Your task to perform on an android device: allow notifications from all sites in the chrome app Image 0: 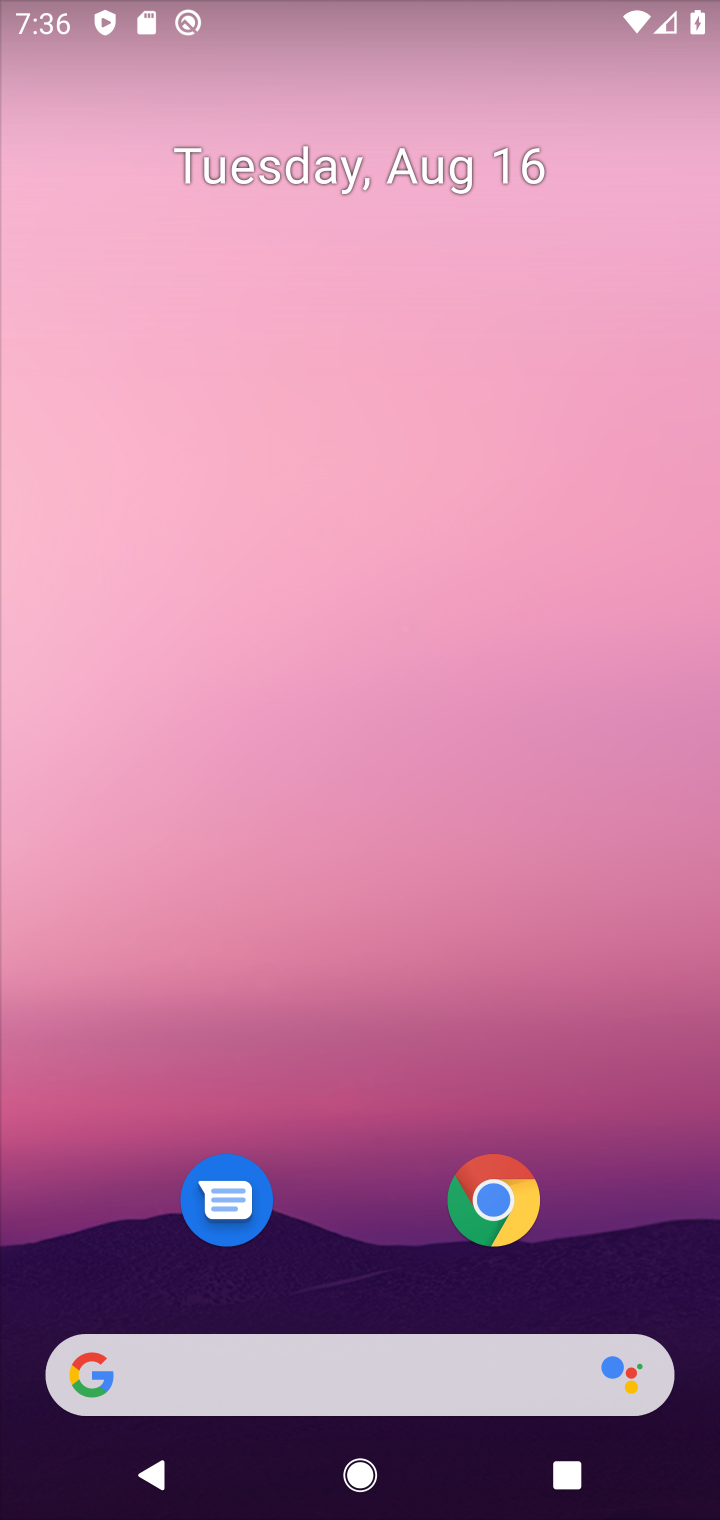
Step 0: click (513, 1188)
Your task to perform on an android device: allow notifications from all sites in the chrome app Image 1: 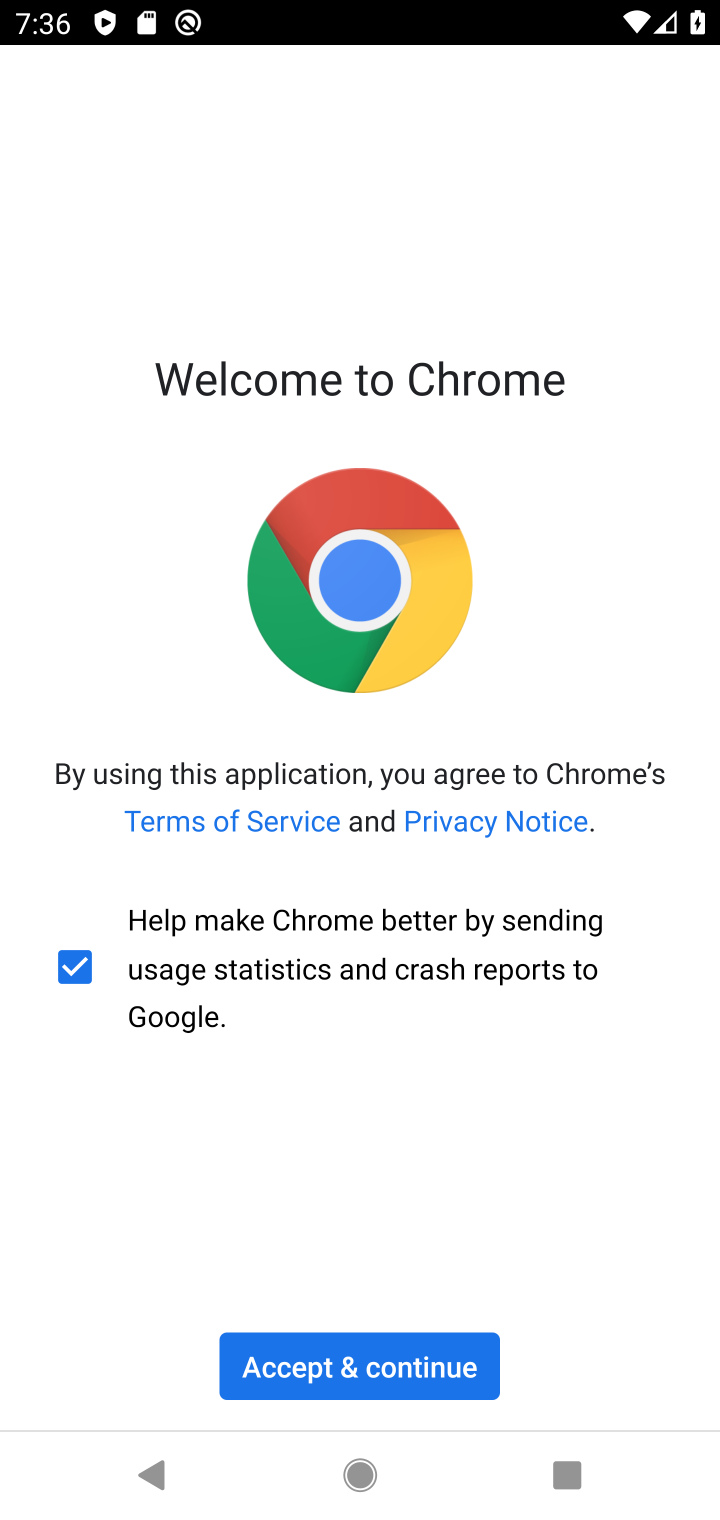
Step 1: click (308, 1363)
Your task to perform on an android device: allow notifications from all sites in the chrome app Image 2: 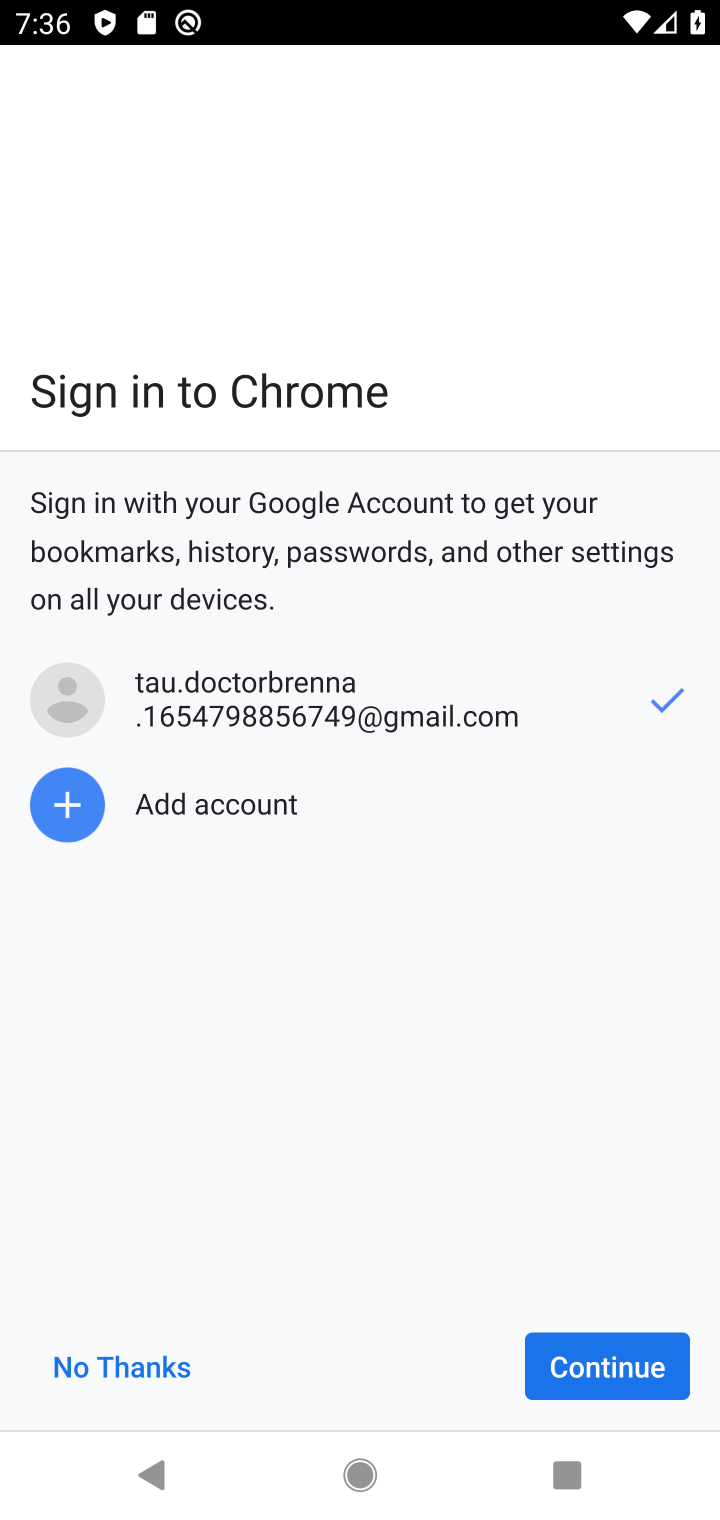
Step 2: click (570, 1361)
Your task to perform on an android device: allow notifications from all sites in the chrome app Image 3: 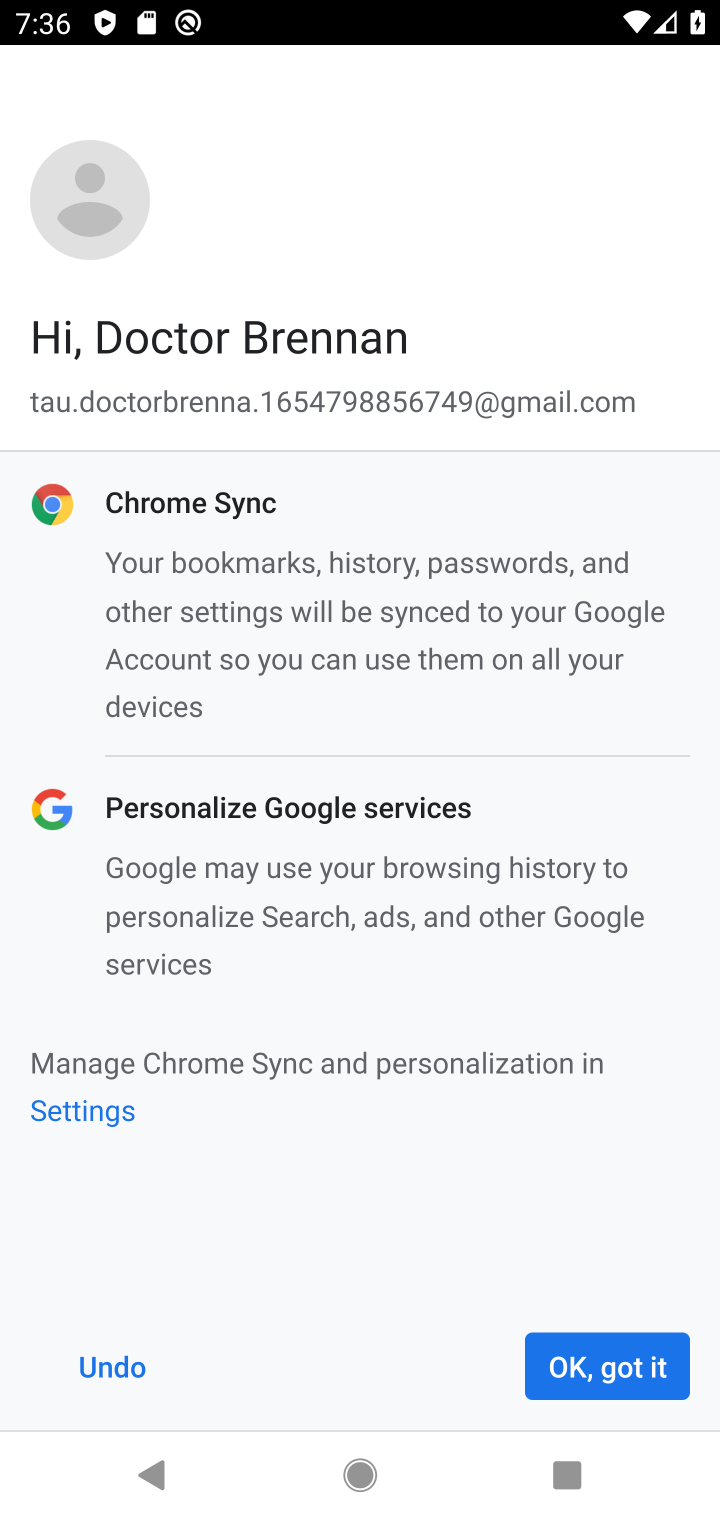
Step 3: click (570, 1361)
Your task to perform on an android device: allow notifications from all sites in the chrome app Image 4: 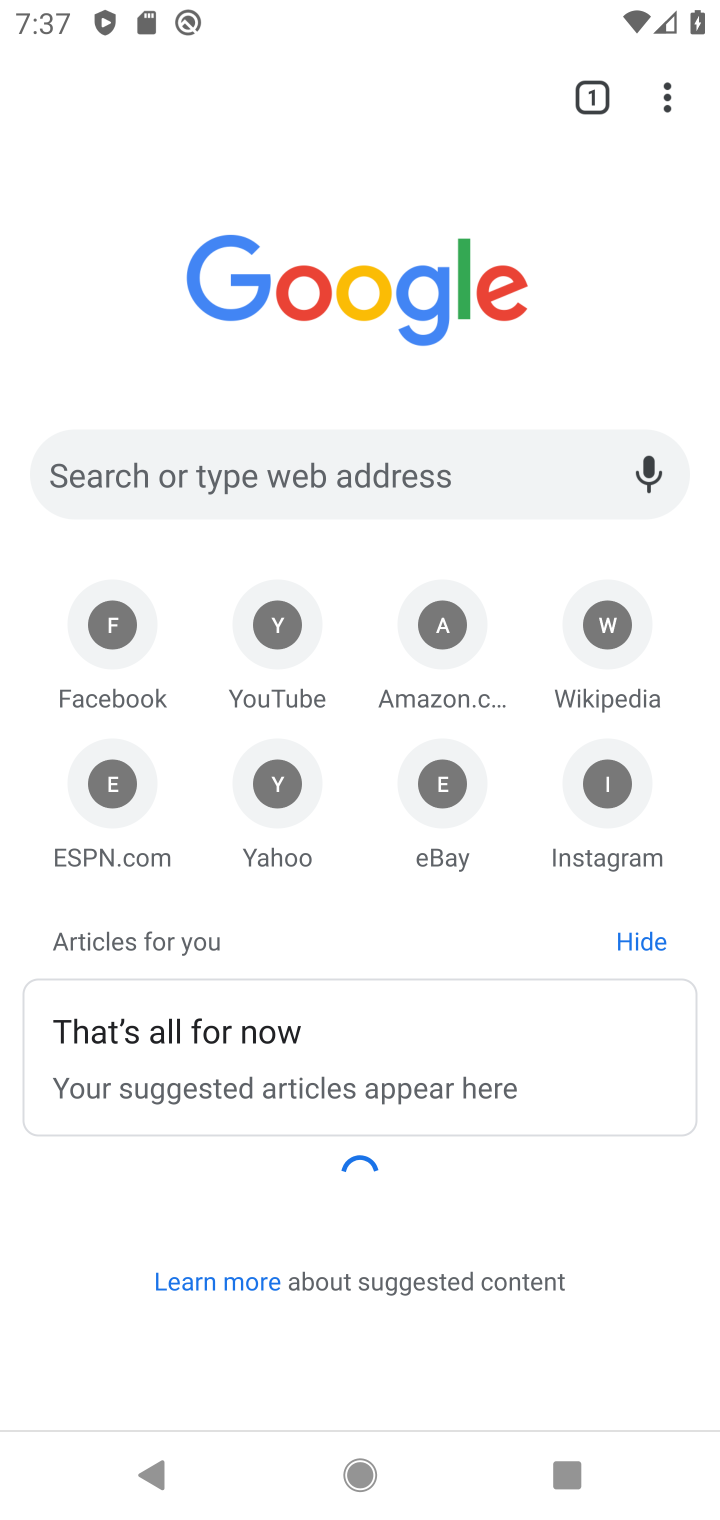
Step 4: click (670, 106)
Your task to perform on an android device: allow notifications from all sites in the chrome app Image 5: 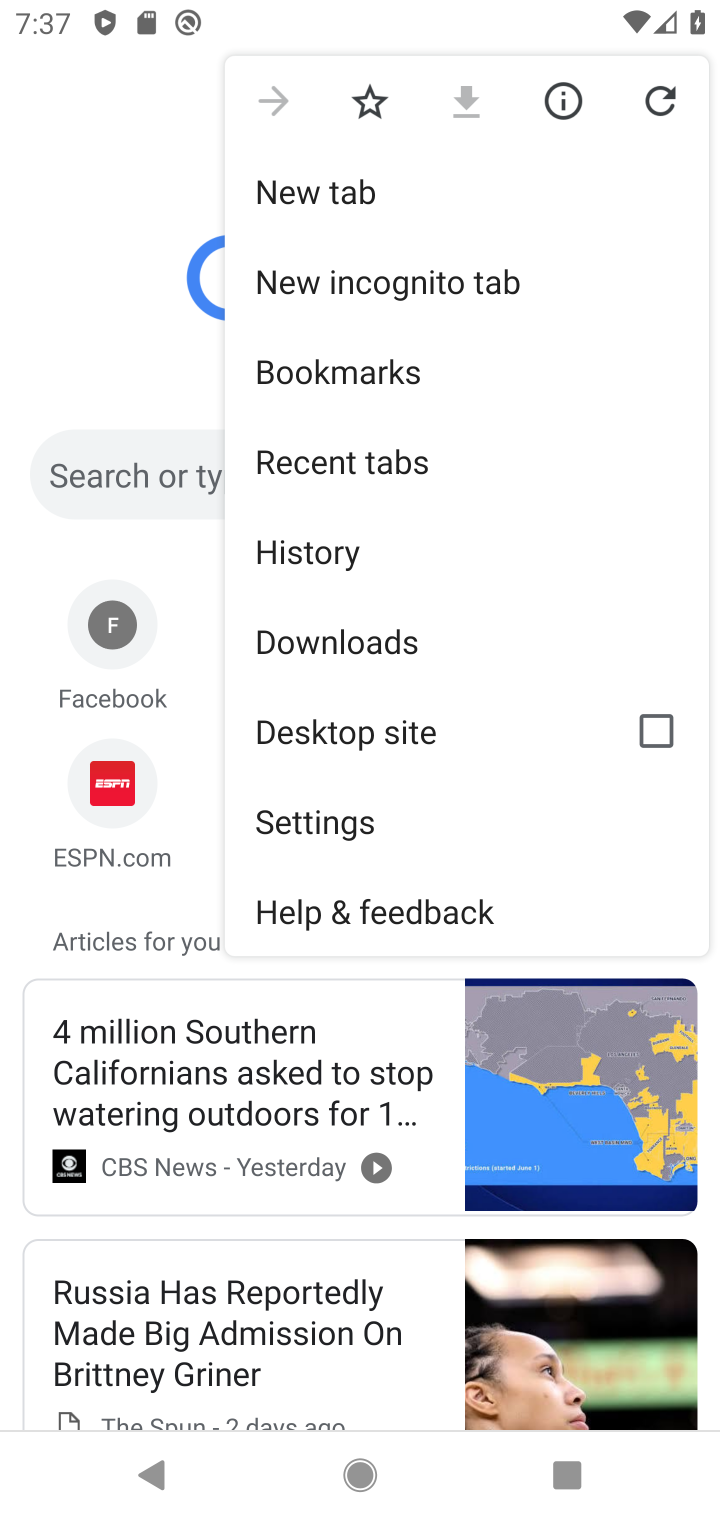
Step 5: click (342, 823)
Your task to perform on an android device: allow notifications from all sites in the chrome app Image 6: 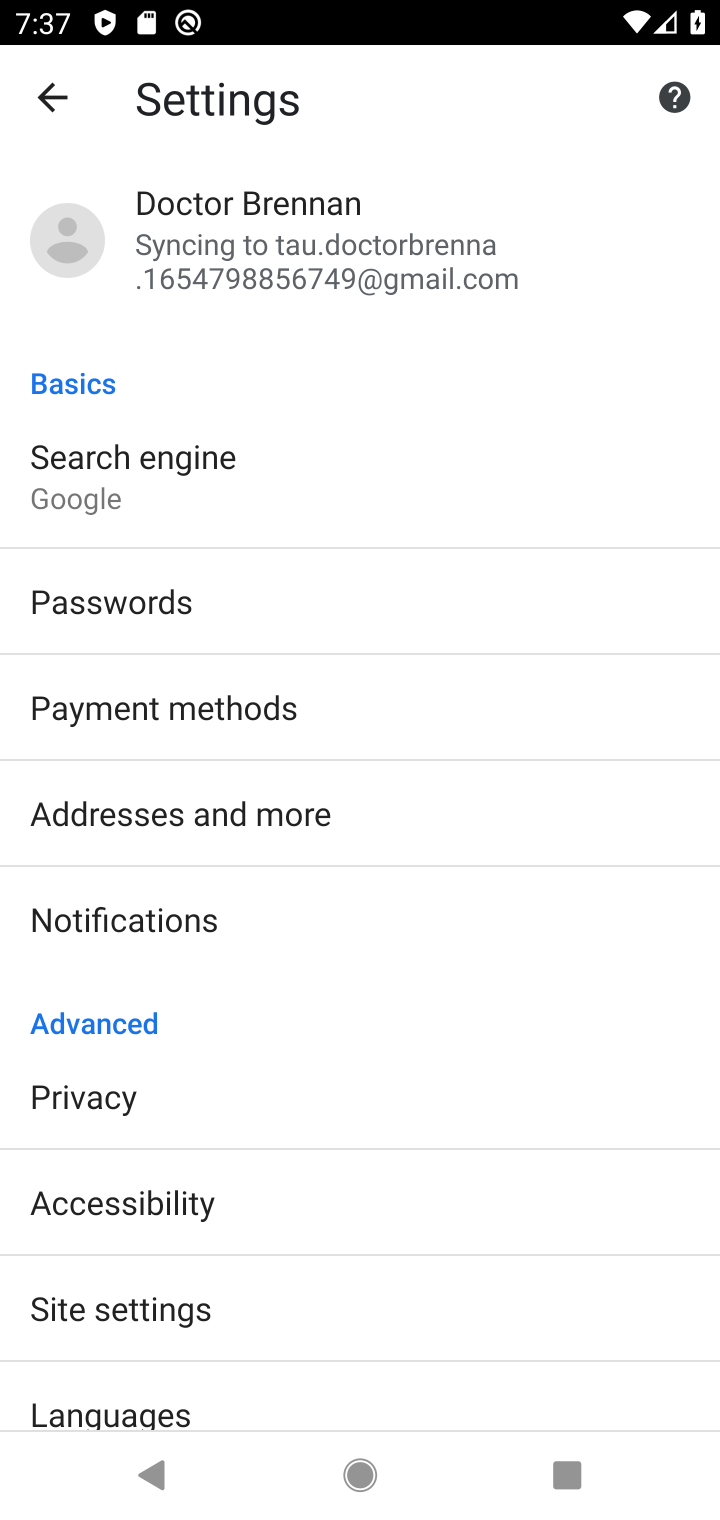
Step 6: click (151, 1306)
Your task to perform on an android device: allow notifications from all sites in the chrome app Image 7: 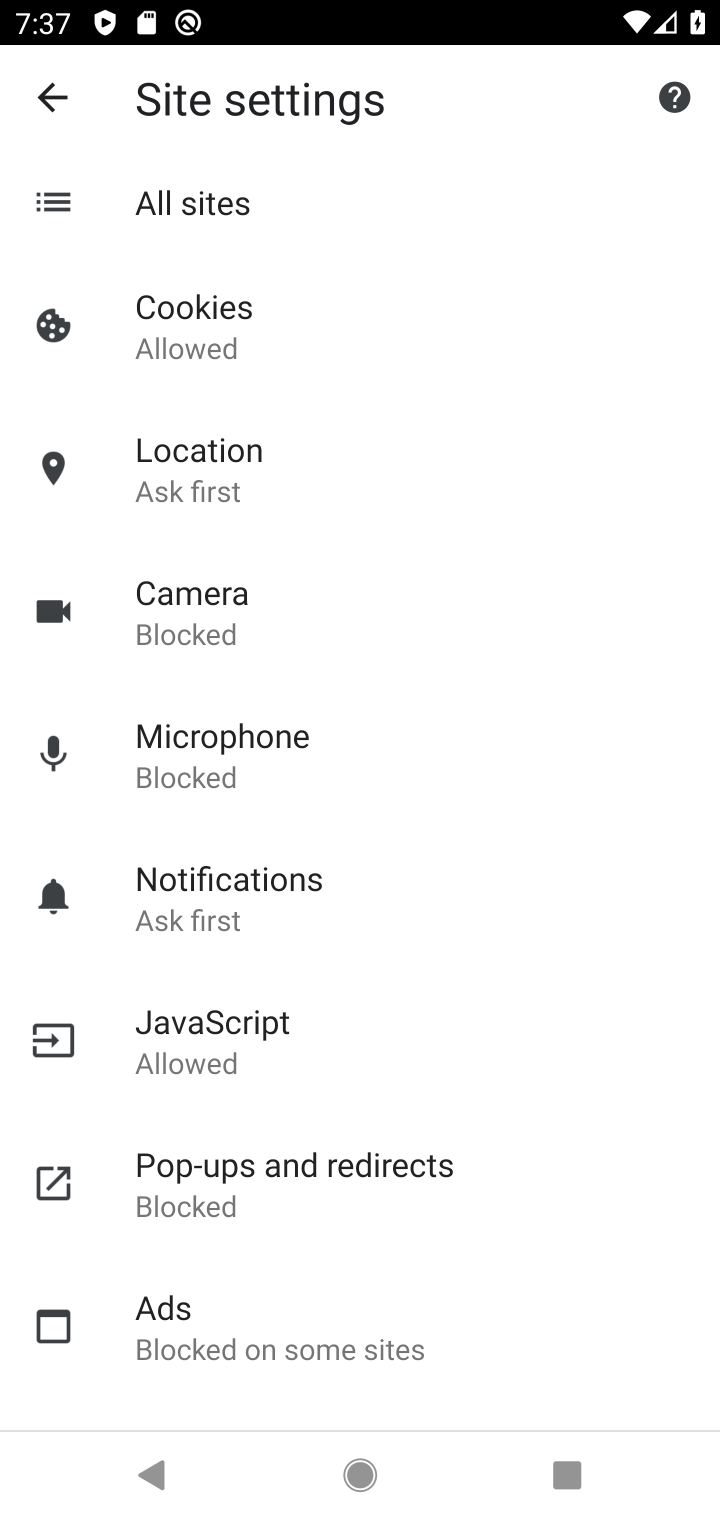
Step 7: click (227, 210)
Your task to perform on an android device: allow notifications from all sites in the chrome app Image 8: 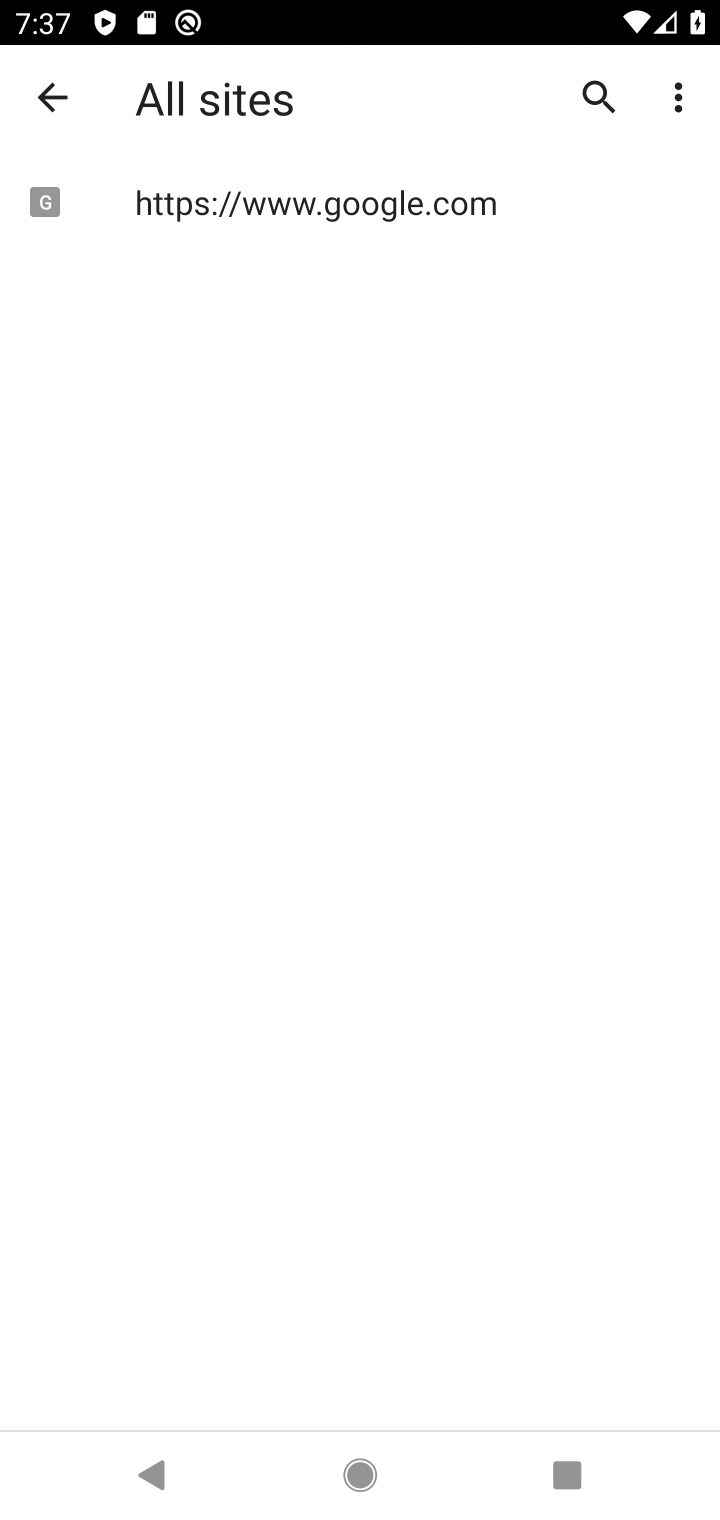
Step 8: task complete